Your task to perform on an android device: Open the web browser Image 0: 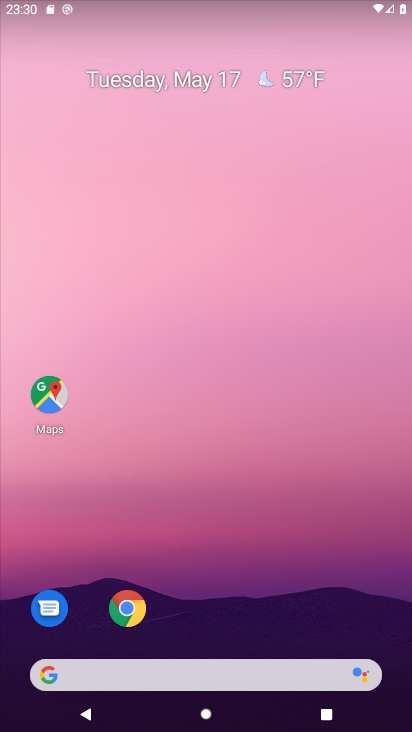
Step 0: click (123, 616)
Your task to perform on an android device: Open the web browser Image 1: 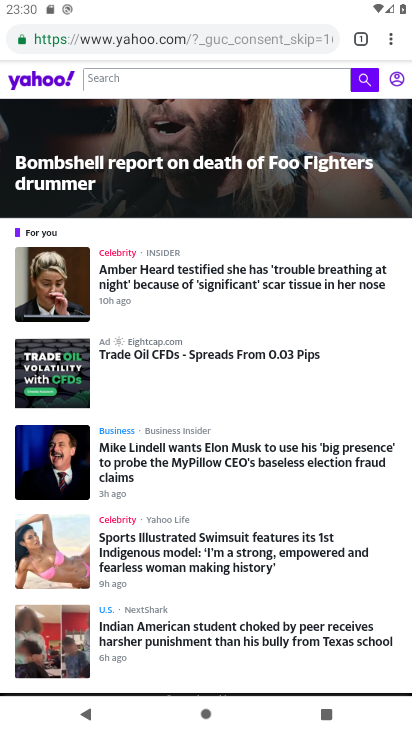
Step 1: task complete